Your task to perform on an android device: open app "WhatsApp Messenger" (install if not already installed) and go to login screen Image 0: 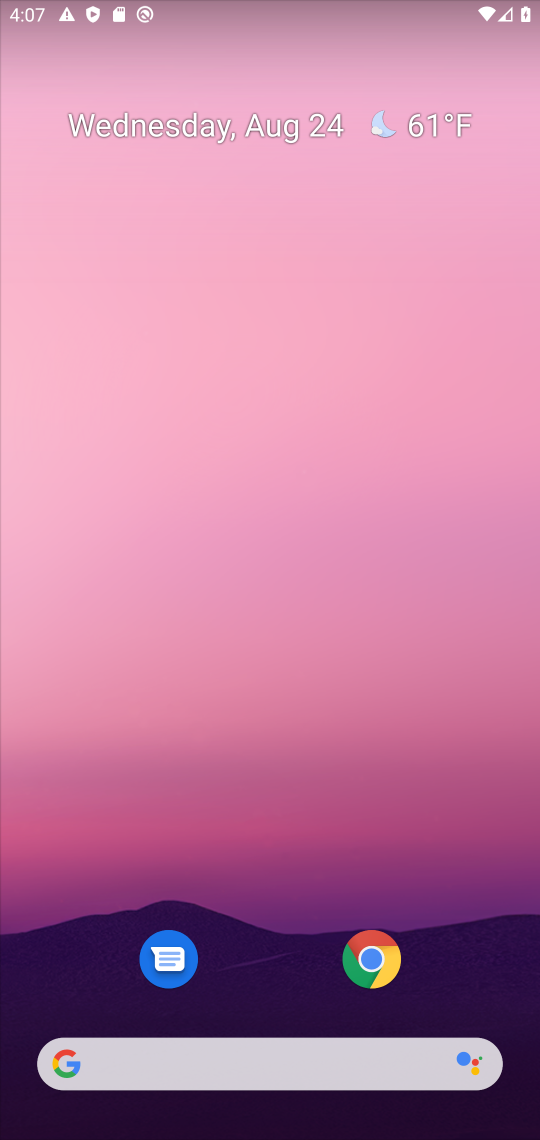
Step 0: drag from (291, 1023) to (294, 186)
Your task to perform on an android device: open app "WhatsApp Messenger" (install if not already installed) and go to login screen Image 1: 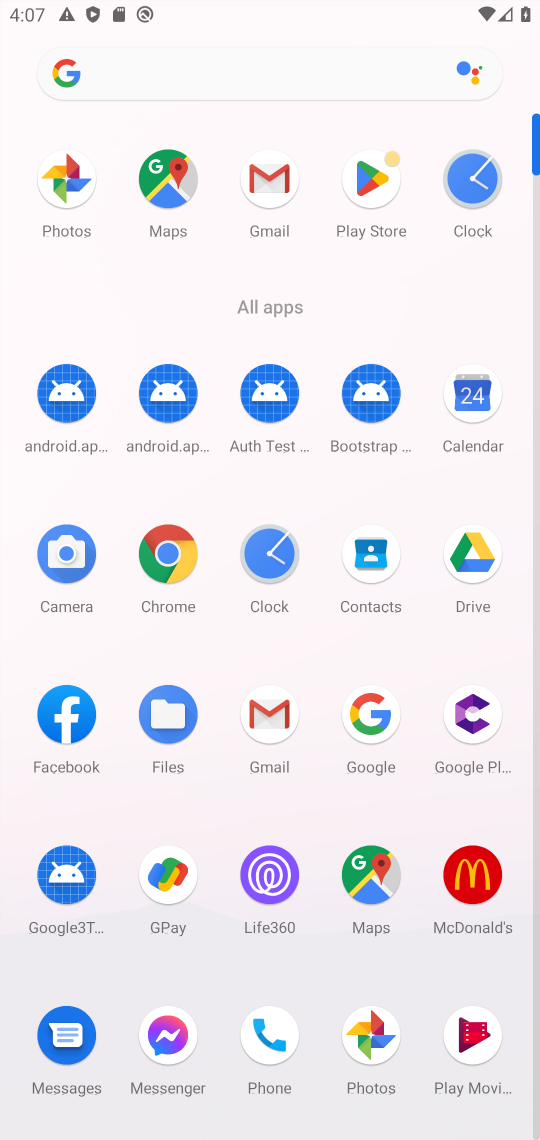
Step 1: click (361, 190)
Your task to perform on an android device: open app "WhatsApp Messenger" (install if not already installed) and go to login screen Image 2: 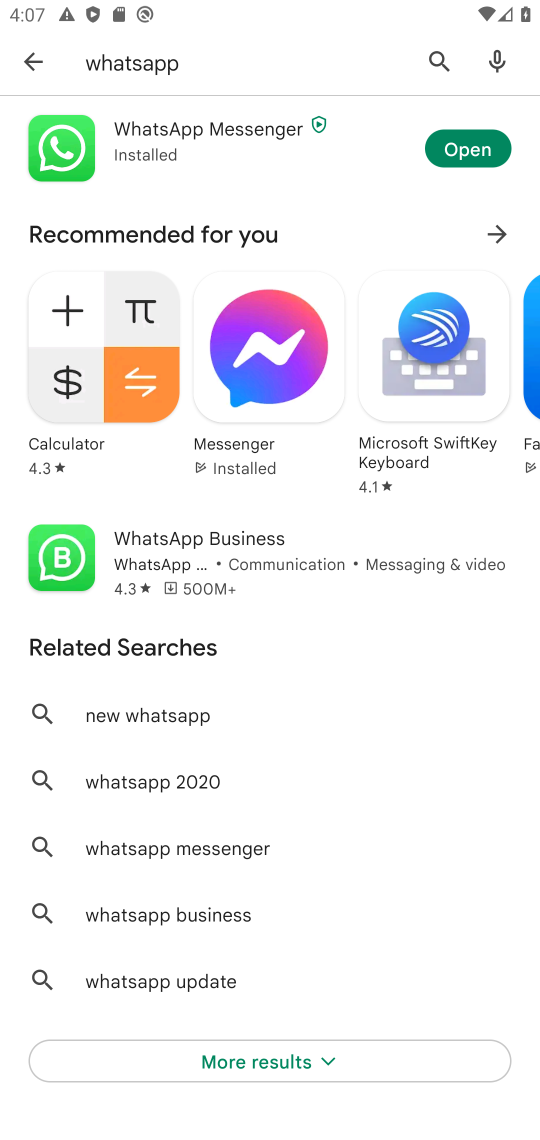
Step 2: click (462, 165)
Your task to perform on an android device: open app "WhatsApp Messenger" (install if not already installed) and go to login screen Image 3: 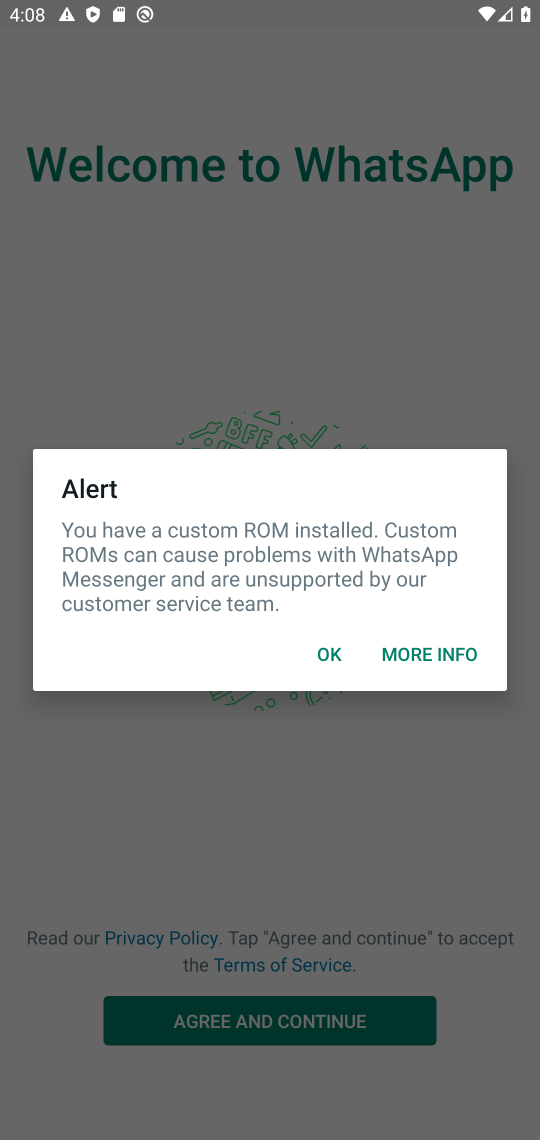
Step 3: click (462, 165)
Your task to perform on an android device: open app "WhatsApp Messenger" (install if not already installed) and go to login screen Image 4: 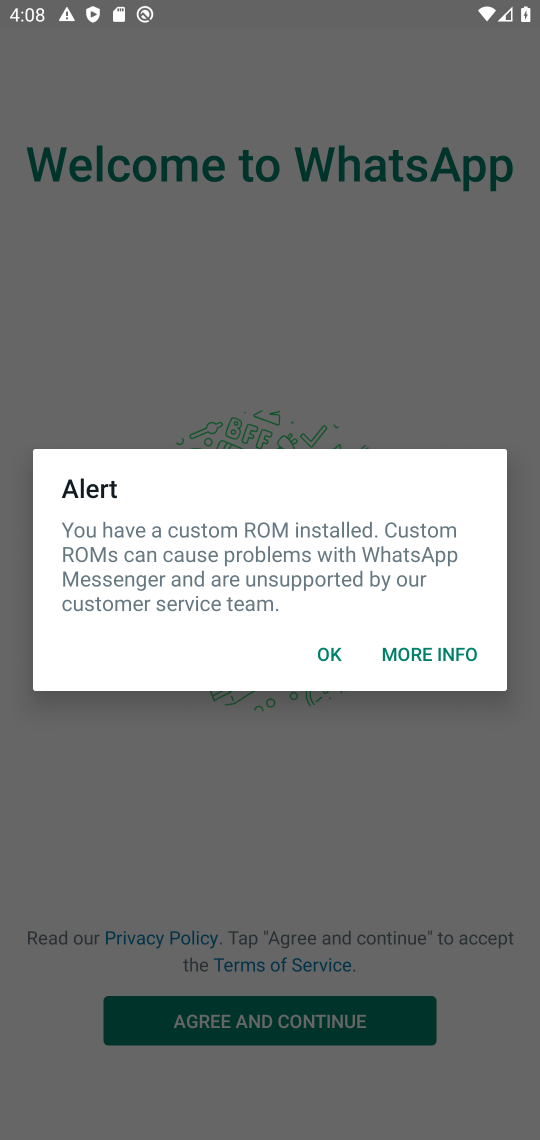
Step 4: click (307, 702)
Your task to perform on an android device: open app "WhatsApp Messenger" (install if not already installed) and go to login screen Image 5: 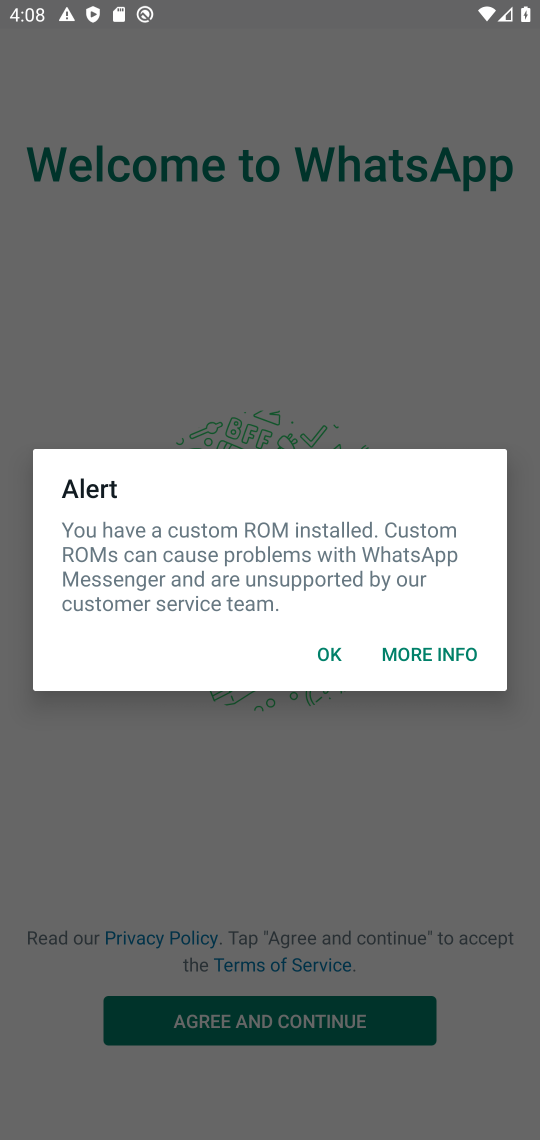
Step 5: click (307, 677)
Your task to perform on an android device: open app "WhatsApp Messenger" (install if not already installed) and go to login screen Image 6: 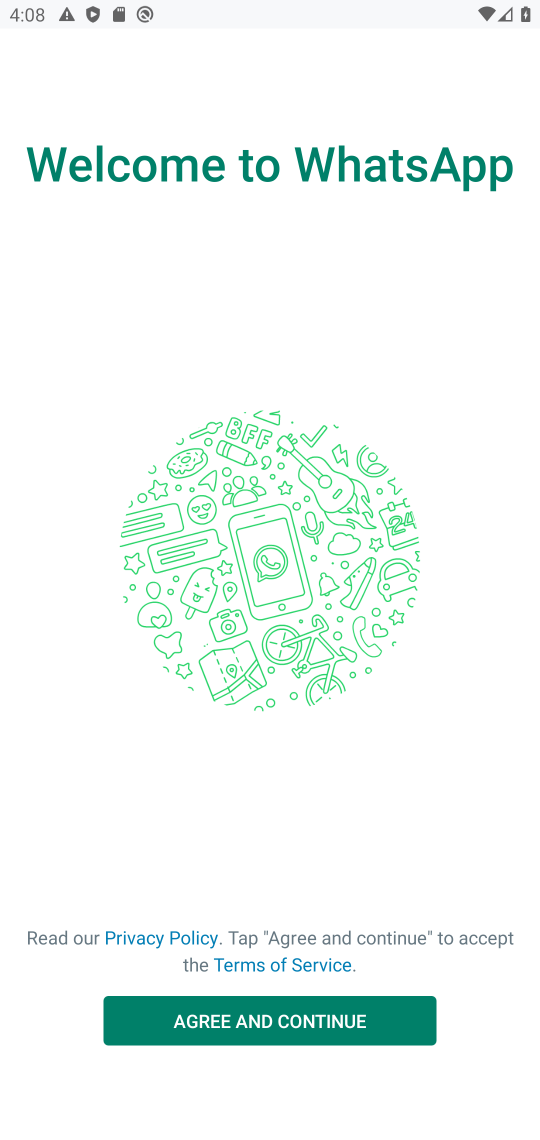
Step 6: task complete